Your task to perform on an android device: Find coffee shops on Maps Image 0: 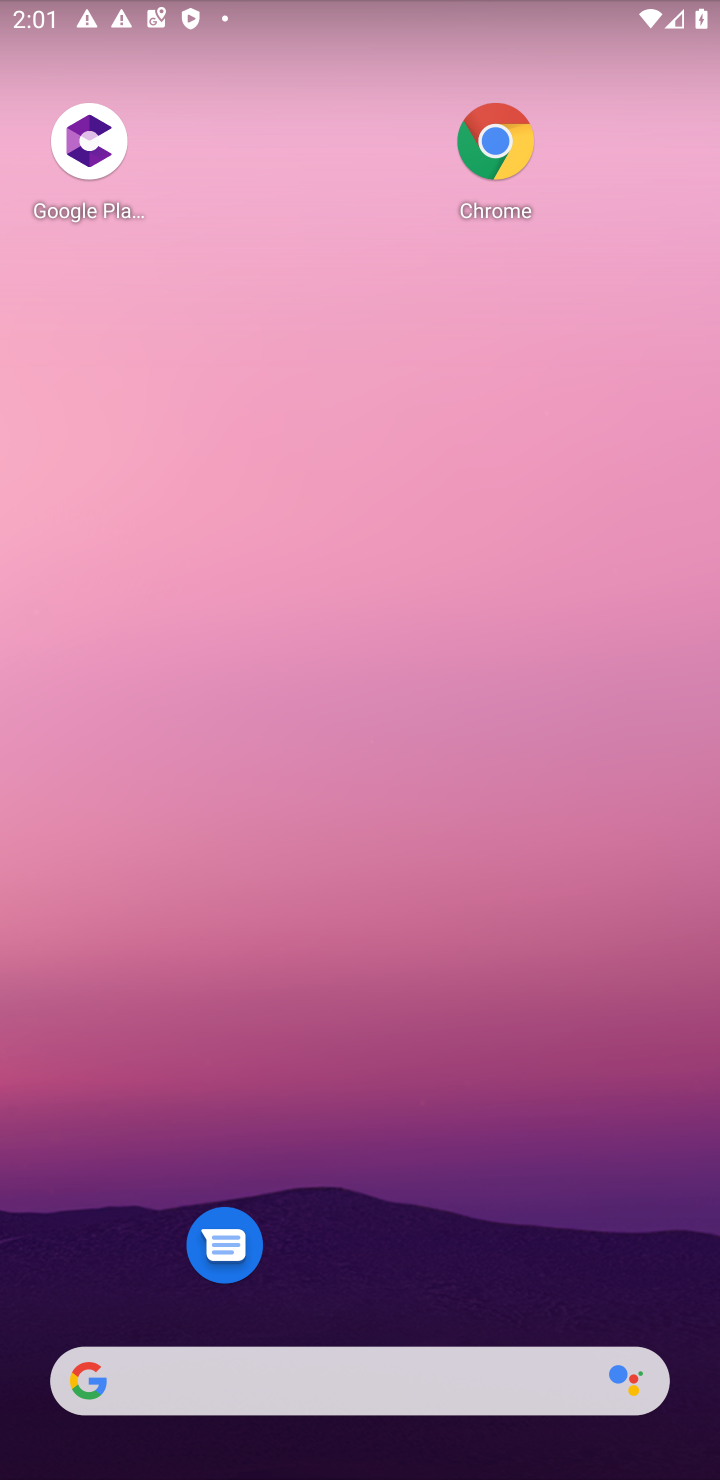
Step 0: drag from (348, 1217) to (320, 409)
Your task to perform on an android device: Find coffee shops on Maps Image 1: 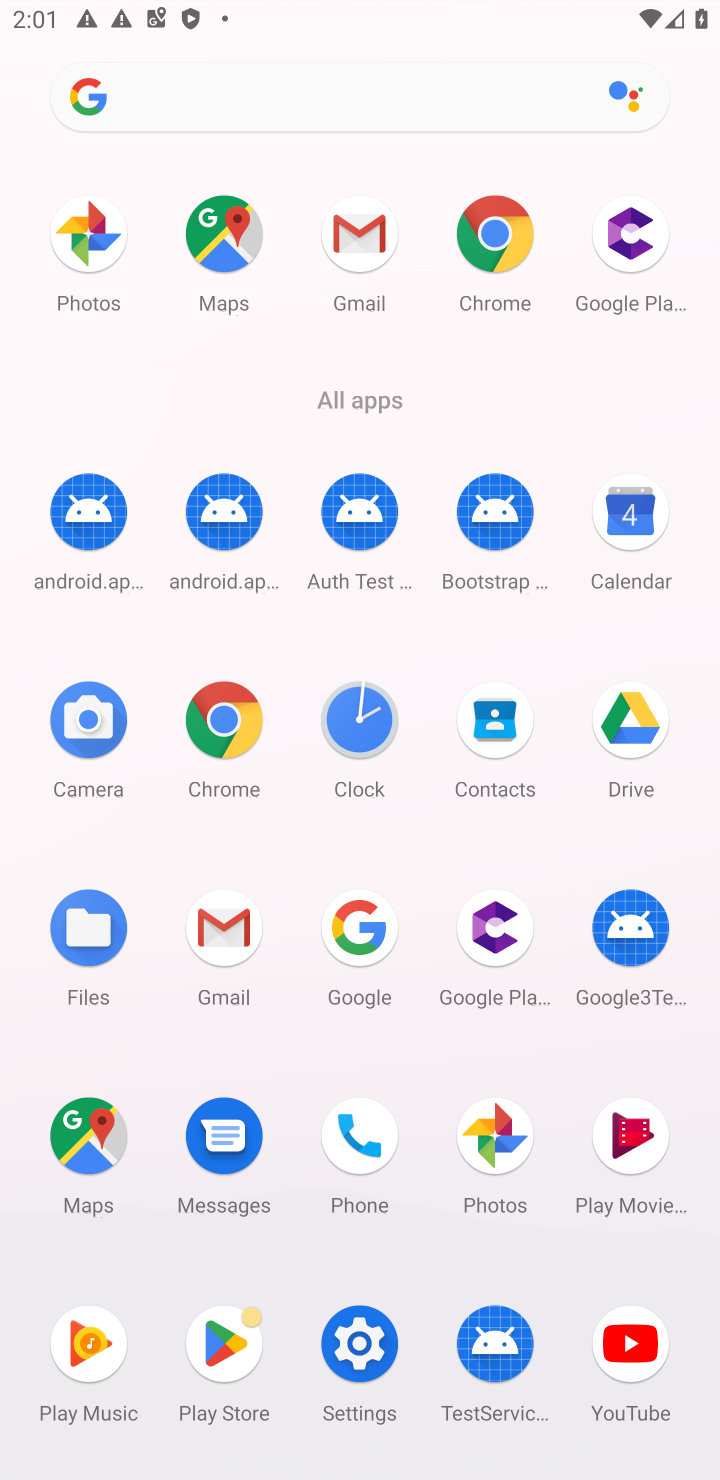
Step 1: click (87, 1126)
Your task to perform on an android device: Find coffee shops on Maps Image 2: 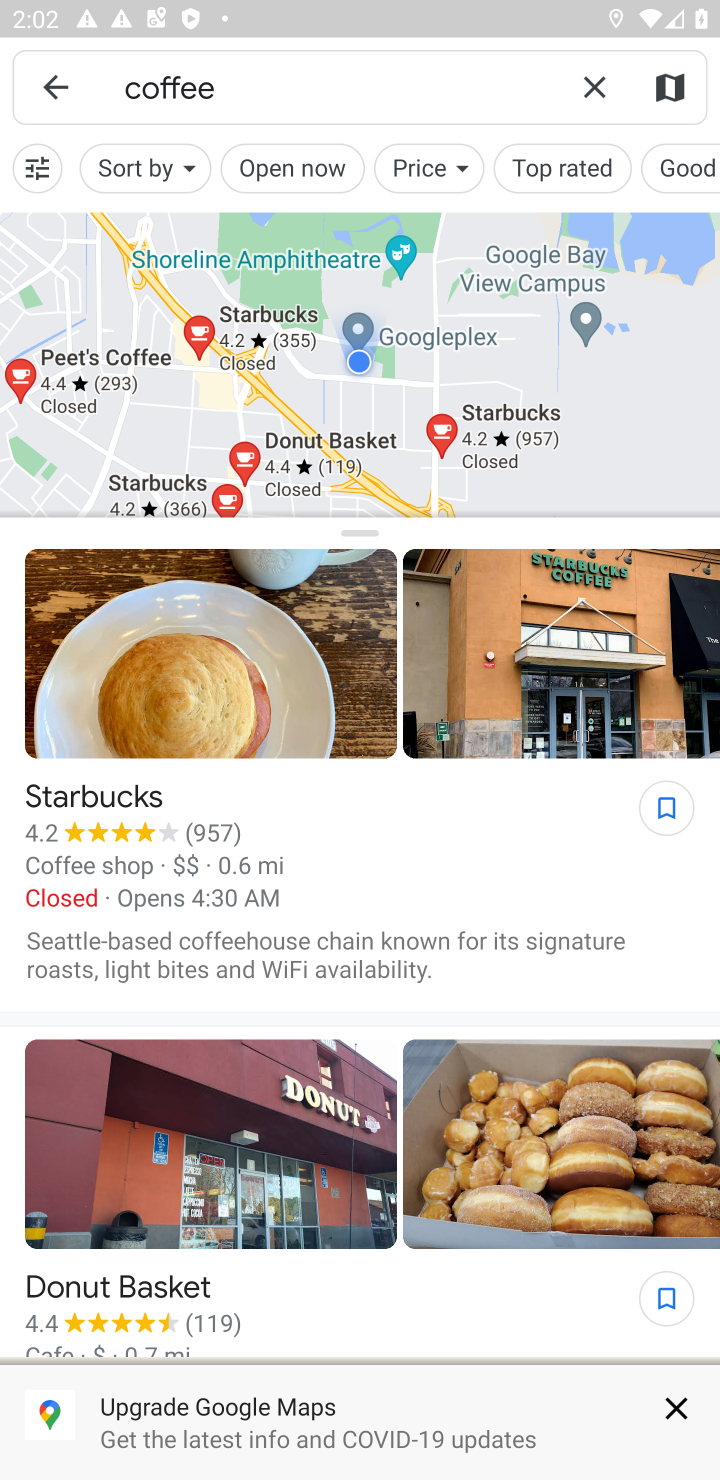
Step 2: task complete